Your task to perform on an android device: What's the weather today? Image 0: 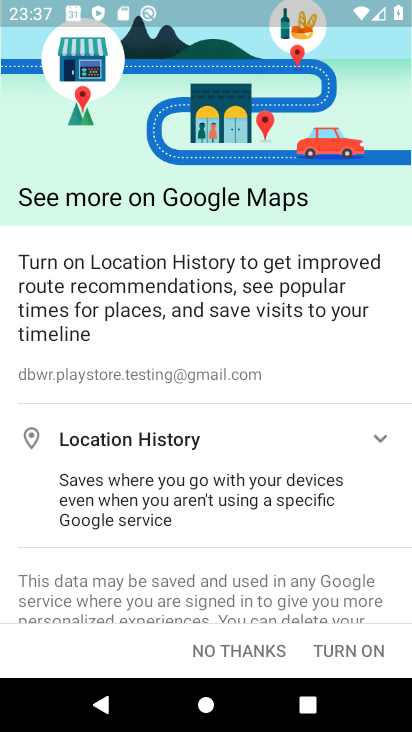
Step 0: press home button
Your task to perform on an android device: What's the weather today? Image 1: 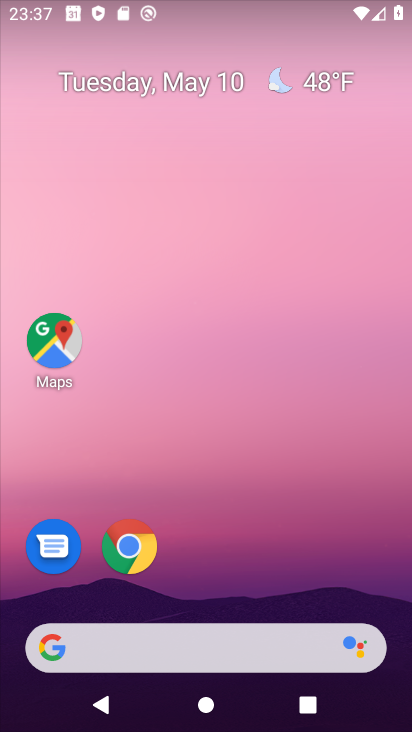
Step 1: drag from (195, 594) to (187, 255)
Your task to perform on an android device: What's the weather today? Image 2: 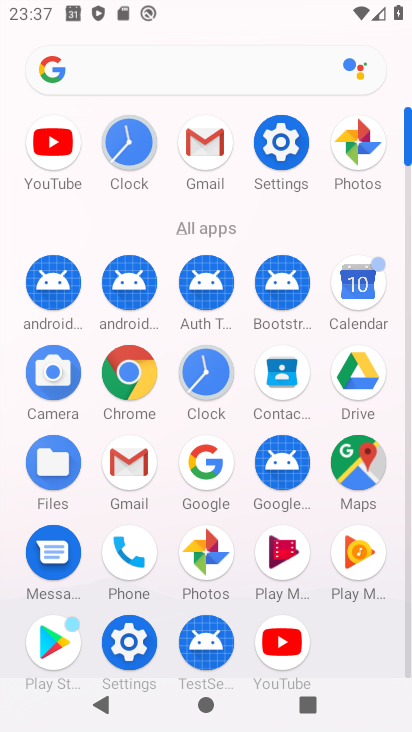
Step 2: click (191, 466)
Your task to perform on an android device: What's the weather today? Image 3: 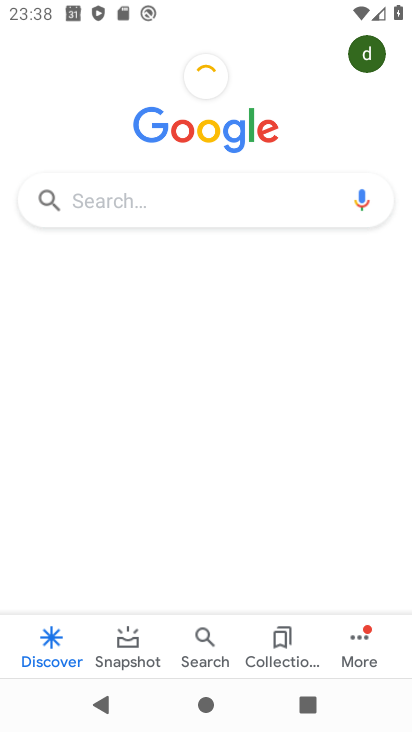
Step 3: click (152, 204)
Your task to perform on an android device: What's the weather today? Image 4: 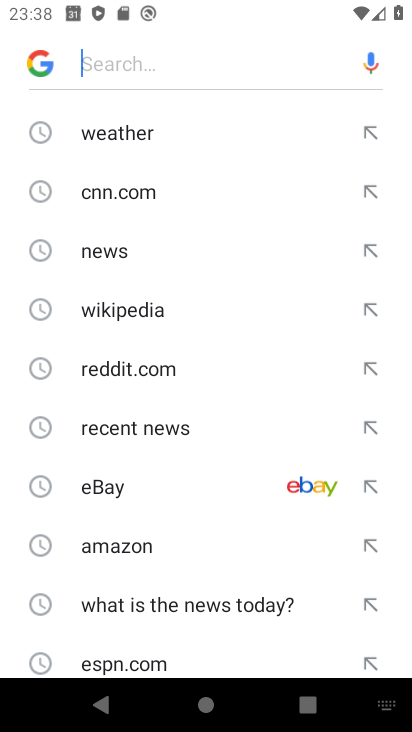
Step 4: click (191, 133)
Your task to perform on an android device: What's the weather today? Image 5: 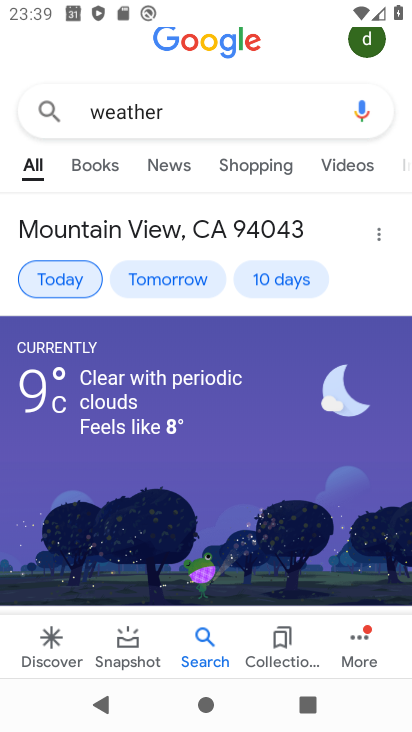
Step 5: task complete